Your task to perform on an android device: Open Google Maps Image 0: 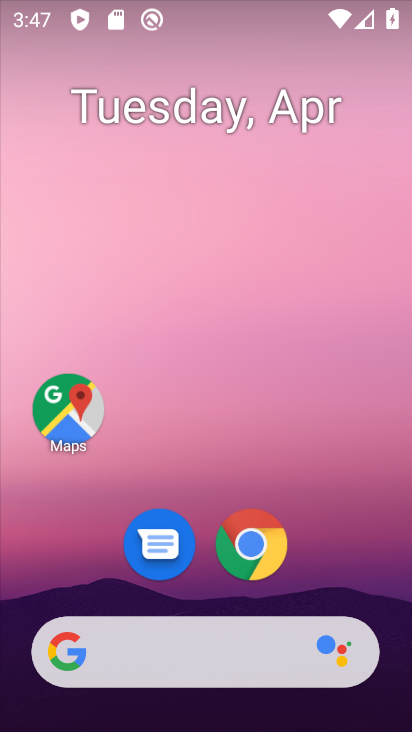
Step 0: click (79, 401)
Your task to perform on an android device: Open Google Maps Image 1: 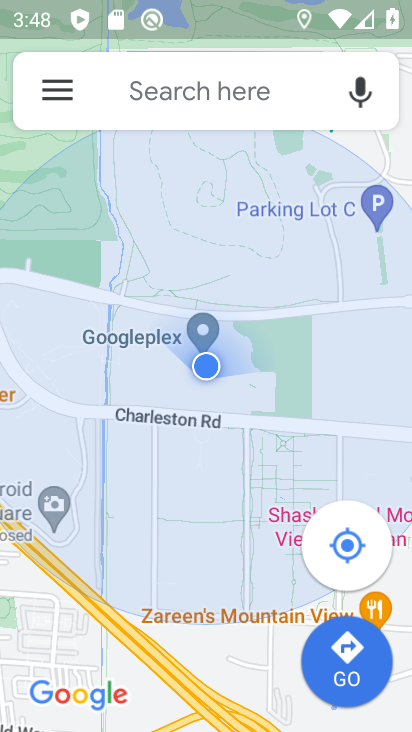
Step 1: task complete